Your task to perform on an android device: turn pop-ups off in chrome Image 0: 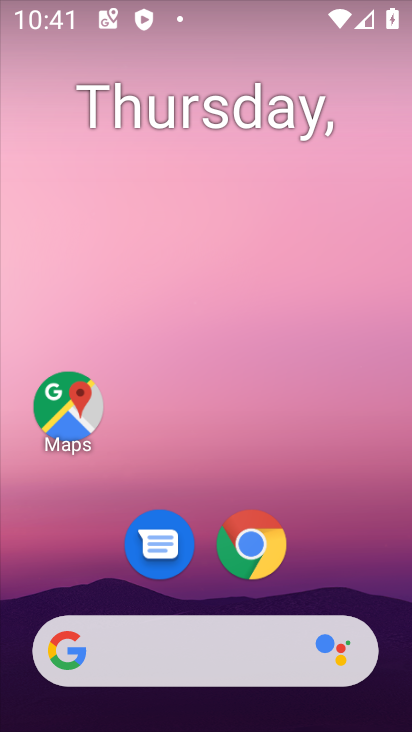
Step 0: drag from (324, 557) to (248, 22)
Your task to perform on an android device: turn pop-ups off in chrome Image 1: 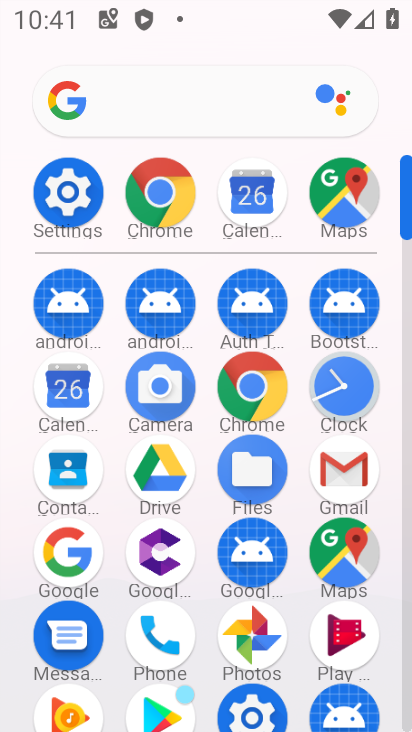
Step 1: drag from (5, 598) to (31, 181)
Your task to perform on an android device: turn pop-ups off in chrome Image 2: 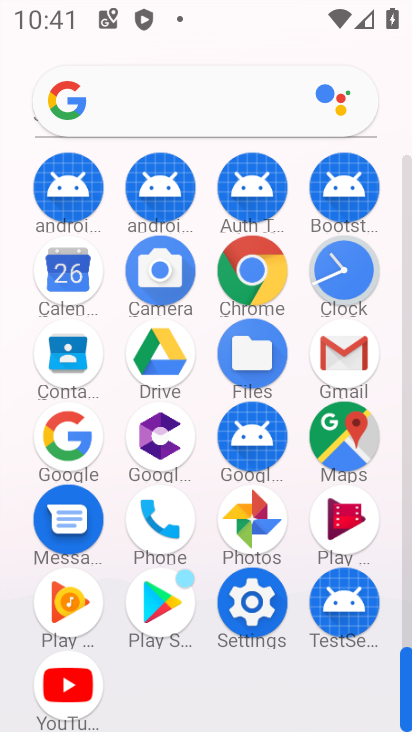
Step 2: click (251, 264)
Your task to perform on an android device: turn pop-ups off in chrome Image 3: 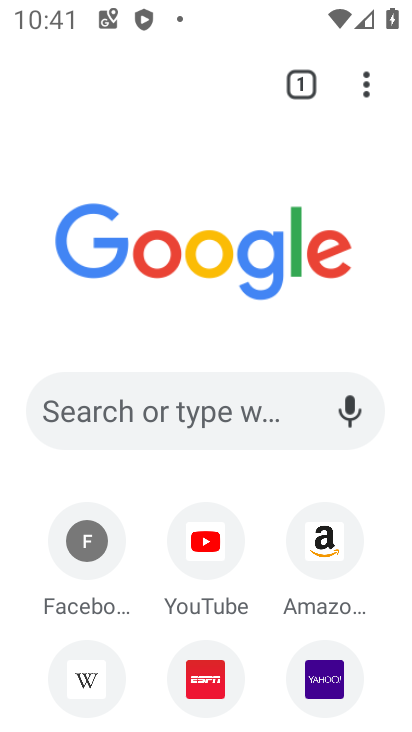
Step 3: drag from (364, 79) to (85, 589)
Your task to perform on an android device: turn pop-ups off in chrome Image 4: 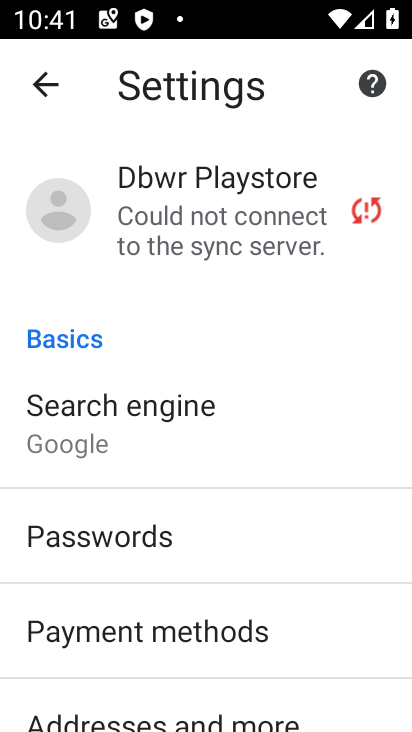
Step 4: drag from (240, 592) to (241, 208)
Your task to perform on an android device: turn pop-ups off in chrome Image 5: 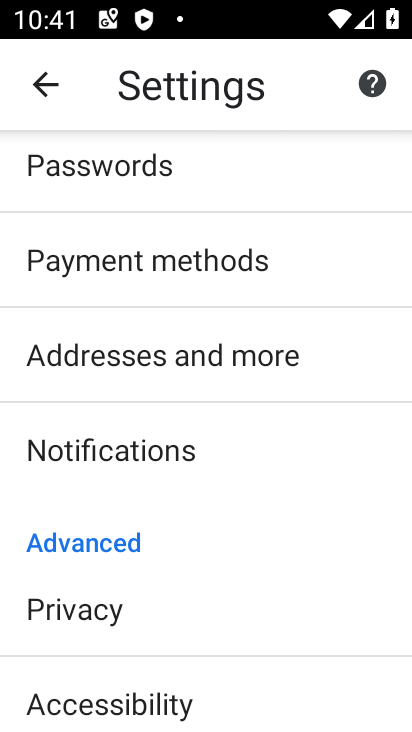
Step 5: drag from (223, 608) to (235, 189)
Your task to perform on an android device: turn pop-ups off in chrome Image 6: 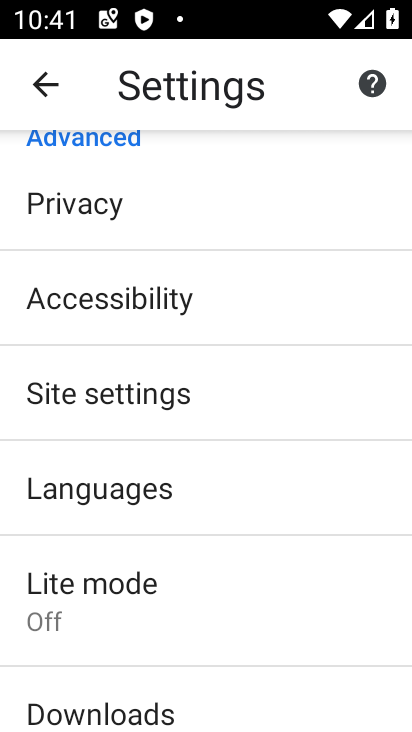
Step 6: click (149, 393)
Your task to perform on an android device: turn pop-ups off in chrome Image 7: 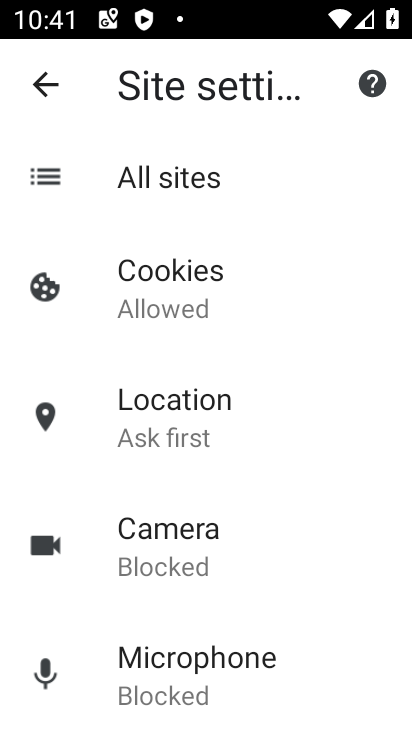
Step 7: drag from (285, 562) to (272, 226)
Your task to perform on an android device: turn pop-ups off in chrome Image 8: 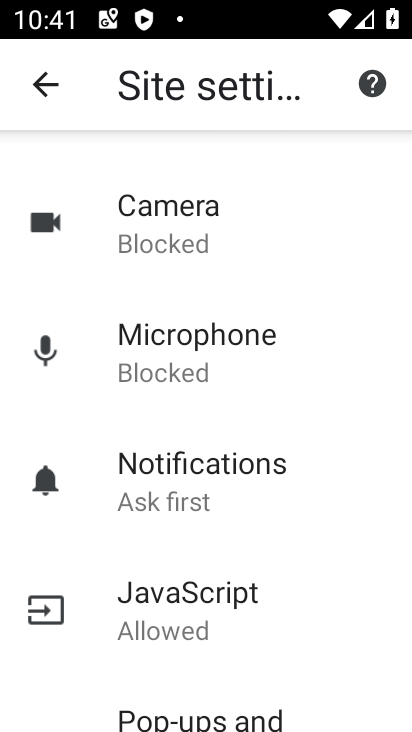
Step 8: drag from (269, 557) to (273, 225)
Your task to perform on an android device: turn pop-ups off in chrome Image 9: 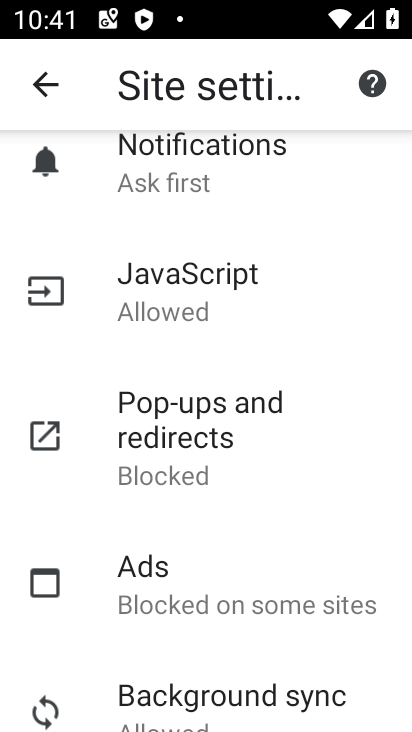
Step 9: click (233, 438)
Your task to perform on an android device: turn pop-ups off in chrome Image 10: 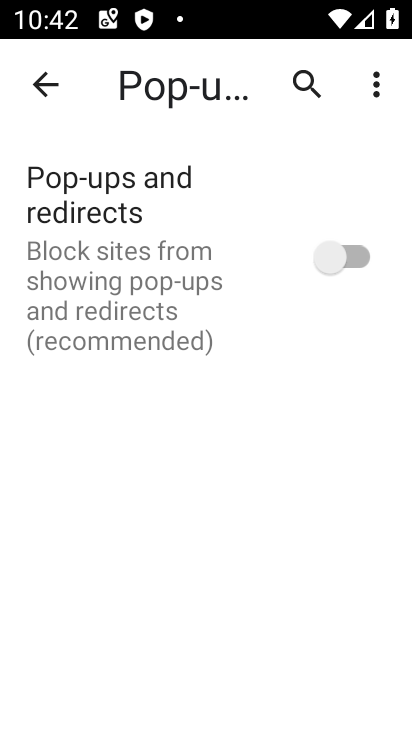
Step 10: task complete